Your task to perform on an android device: turn on improve location accuracy Image 0: 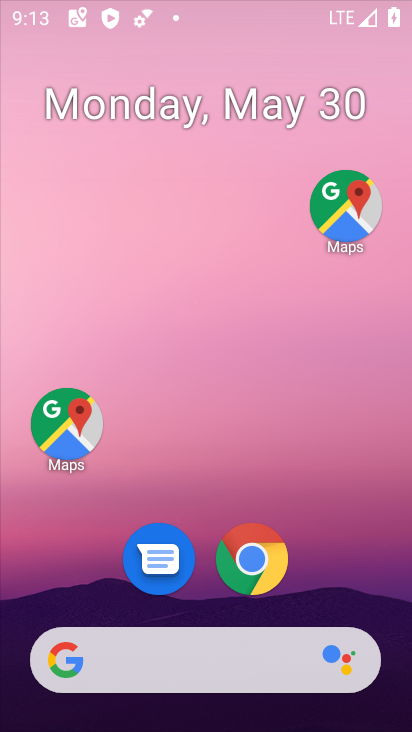
Step 0: drag from (376, 539) to (235, 62)
Your task to perform on an android device: turn on improve location accuracy Image 1: 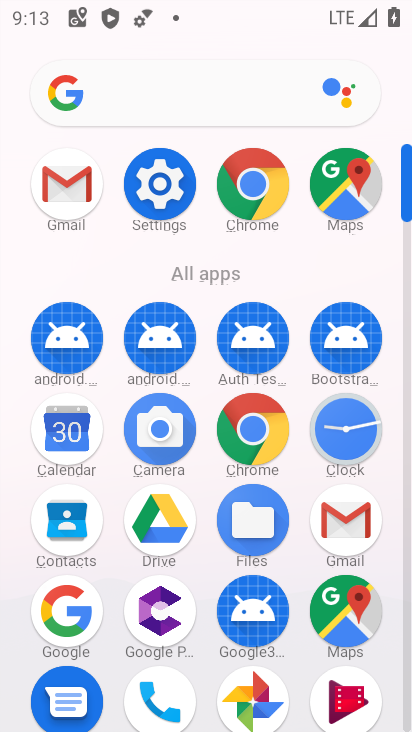
Step 1: click (147, 207)
Your task to perform on an android device: turn on improve location accuracy Image 2: 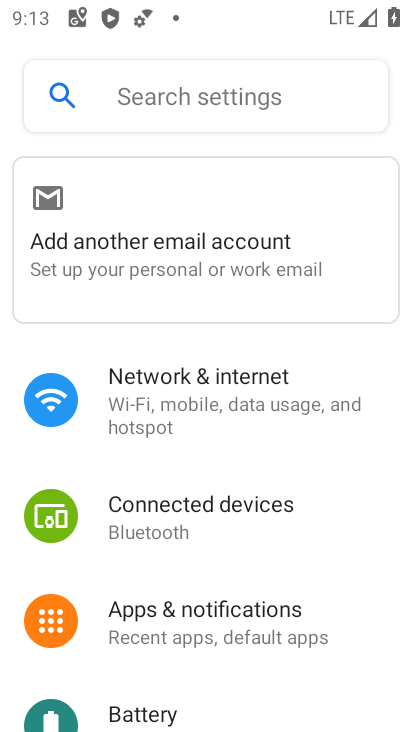
Step 2: drag from (220, 490) to (228, 97)
Your task to perform on an android device: turn on improve location accuracy Image 3: 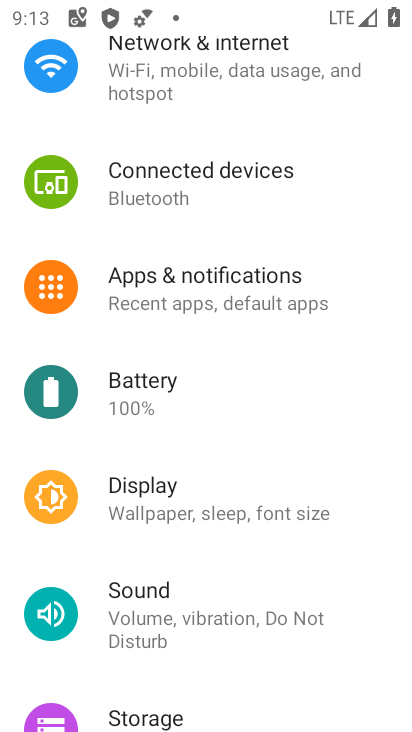
Step 3: drag from (187, 480) to (235, 77)
Your task to perform on an android device: turn on improve location accuracy Image 4: 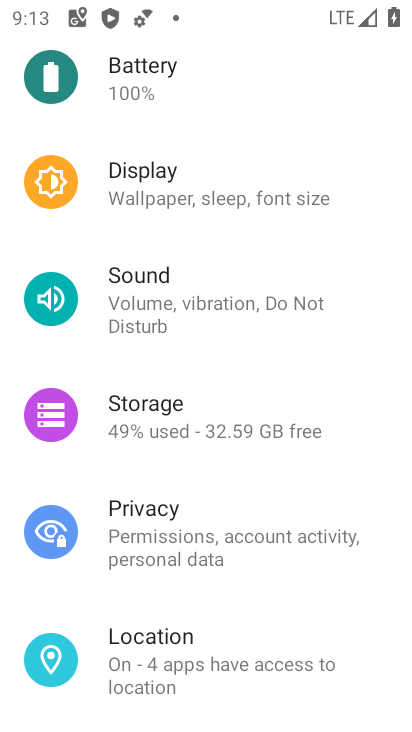
Step 4: click (150, 635)
Your task to perform on an android device: turn on improve location accuracy Image 5: 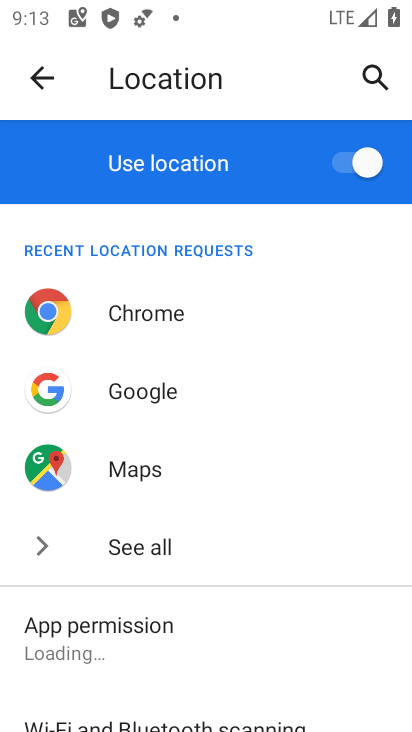
Step 5: drag from (210, 632) to (277, 88)
Your task to perform on an android device: turn on improve location accuracy Image 6: 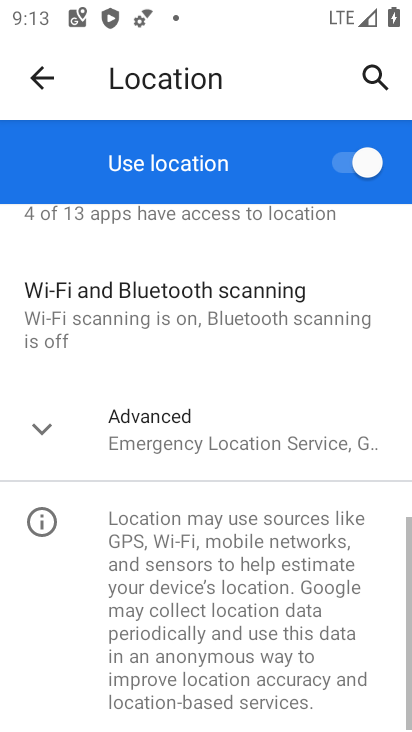
Step 6: click (210, 434)
Your task to perform on an android device: turn on improve location accuracy Image 7: 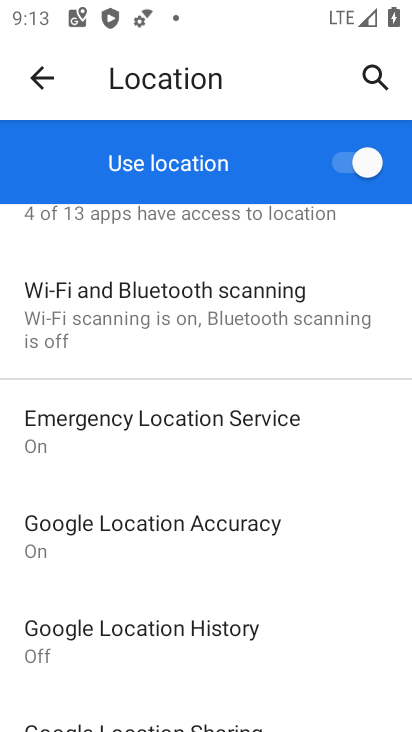
Step 7: click (247, 531)
Your task to perform on an android device: turn on improve location accuracy Image 8: 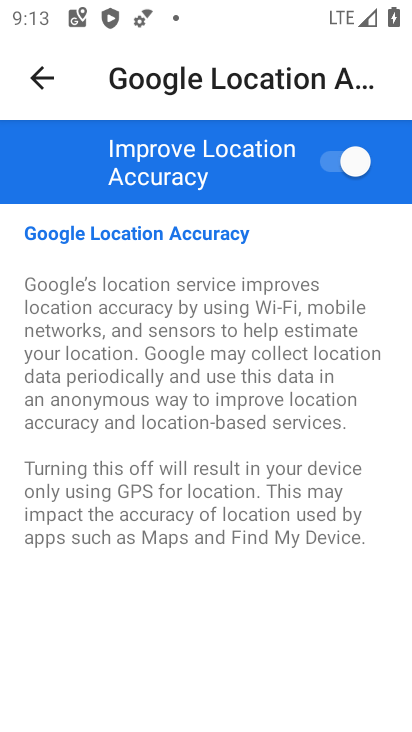
Step 8: task complete